Your task to perform on an android device: Open sound settings Image 0: 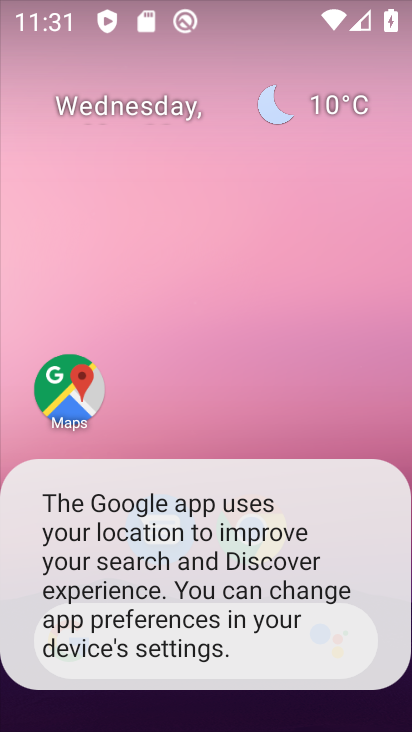
Step 0: drag from (346, 590) to (401, 168)
Your task to perform on an android device: Open sound settings Image 1: 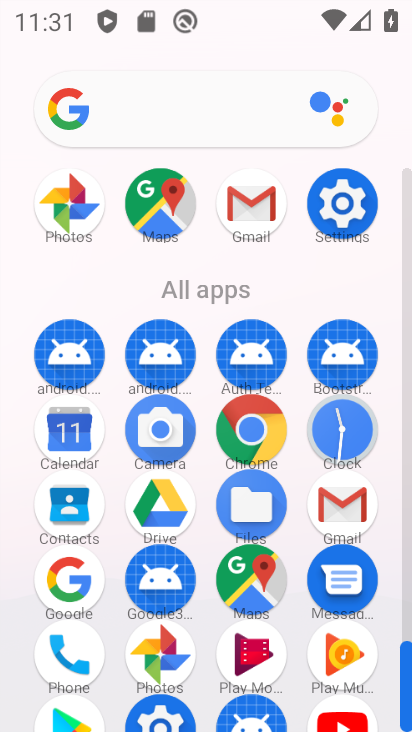
Step 1: drag from (203, 594) to (260, 384)
Your task to perform on an android device: Open sound settings Image 2: 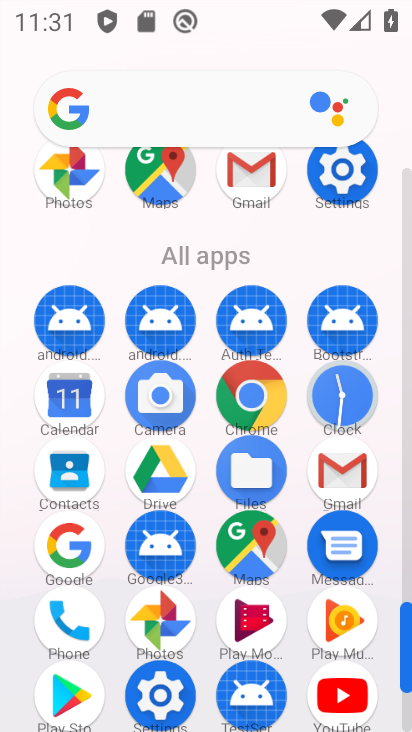
Step 2: click (161, 680)
Your task to perform on an android device: Open sound settings Image 3: 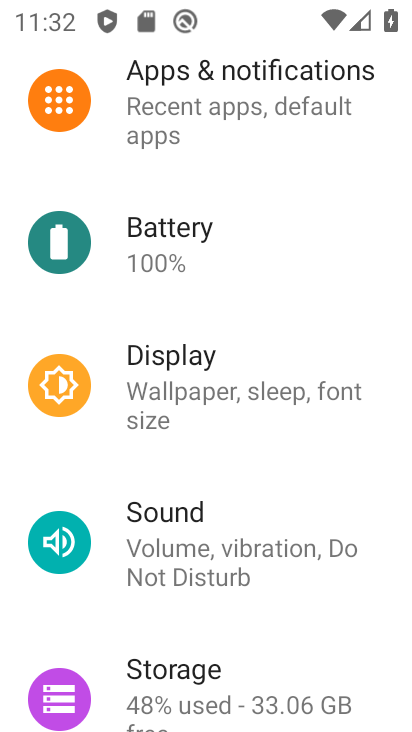
Step 3: click (183, 558)
Your task to perform on an android device: Open sound settings Image 4: 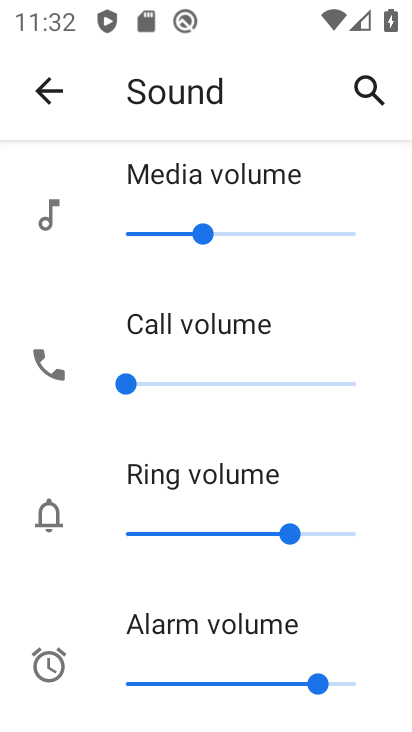
Step 4: task complete